Your task to perform on an android device: turn off javascript in the chrome app Image 0: 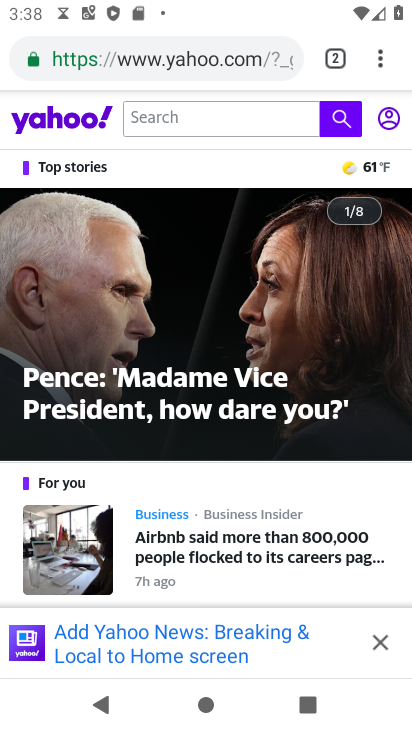
Step 0: drag from (382, 77) to (327, 598)
Your task to perform on an android device: turn off javascript in the chrome app Image 1: 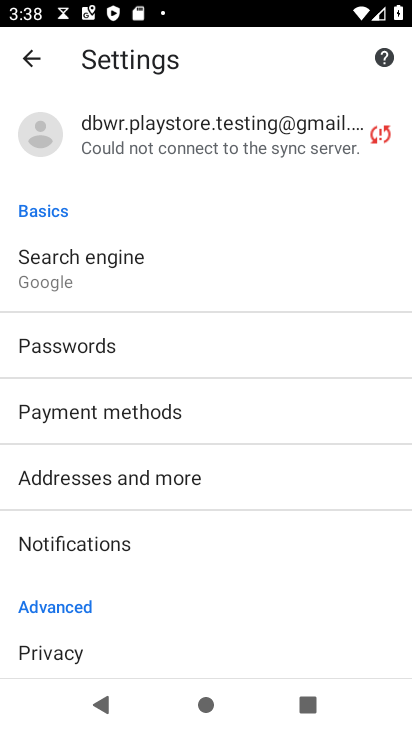
Step 1: drag from (209, 587) to (250, 118)
Your task to perform on an android device: turn off javascript in the chrome app Image 2: 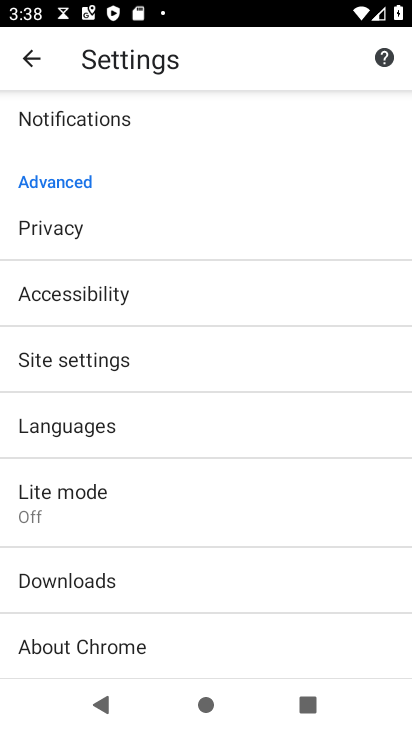
Step 2: click (238, 347)
Your task to perform on an android device: turn off javascript in the chrome app Image 3: 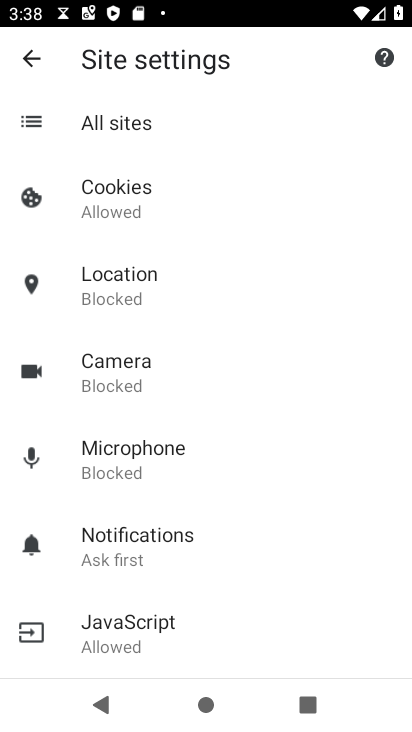
Step 3: click (235, 632)
Your task to perform on an android device: turn off javascript in the chrome app Image 4: 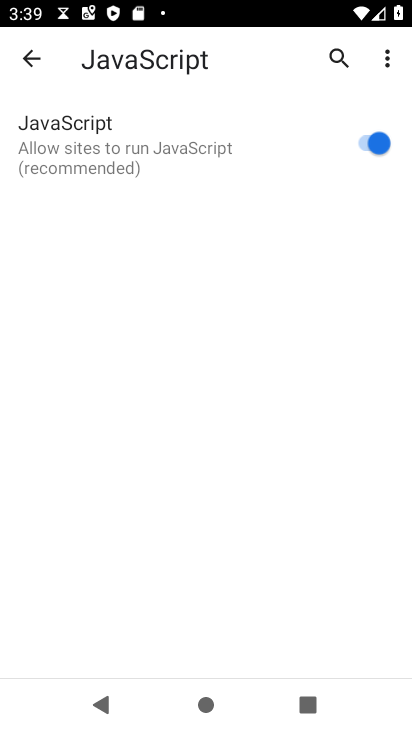
Step 4: click (376, 140)
Your task to perform on an android device: turn off javascript in the chrome app Image 5: 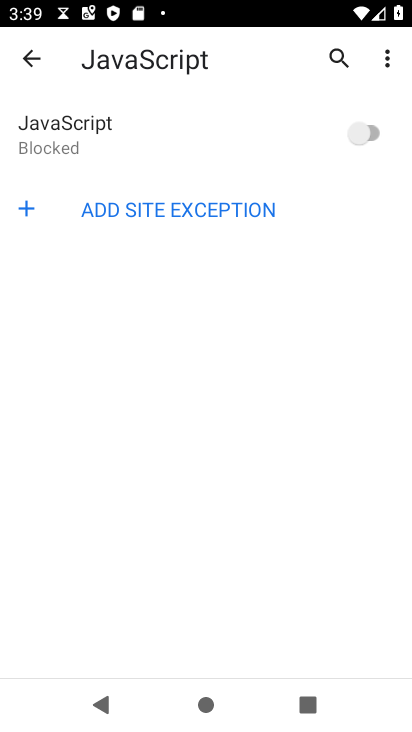
Step 5: task complete